Your task to perform on an android device: Show me recent news Image 0: 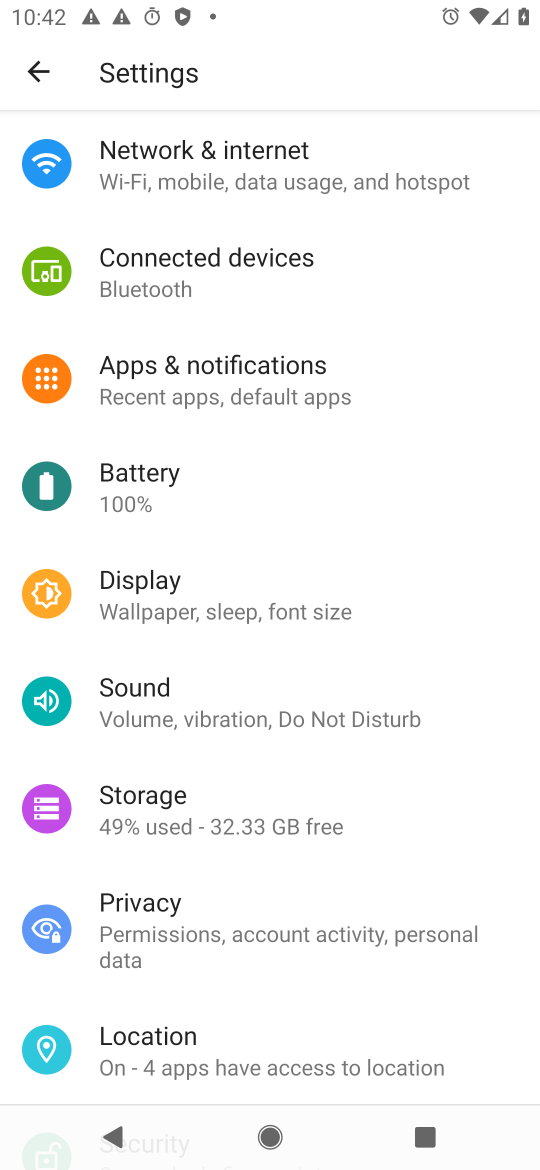
Step 0: drag from (287, 760) to (348, 501)
Your task to perform on an android device: Show me recent news Image 1: 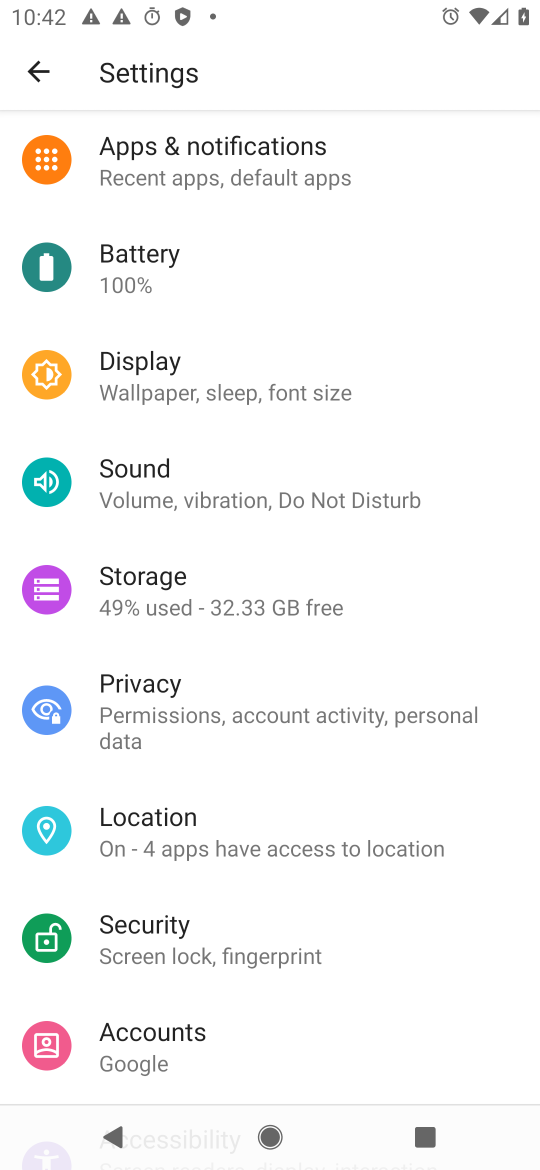
Step 1: drag from (466, 152) to (323, 1149)
Your task to perform on an android device: Show me recent news Image 2: 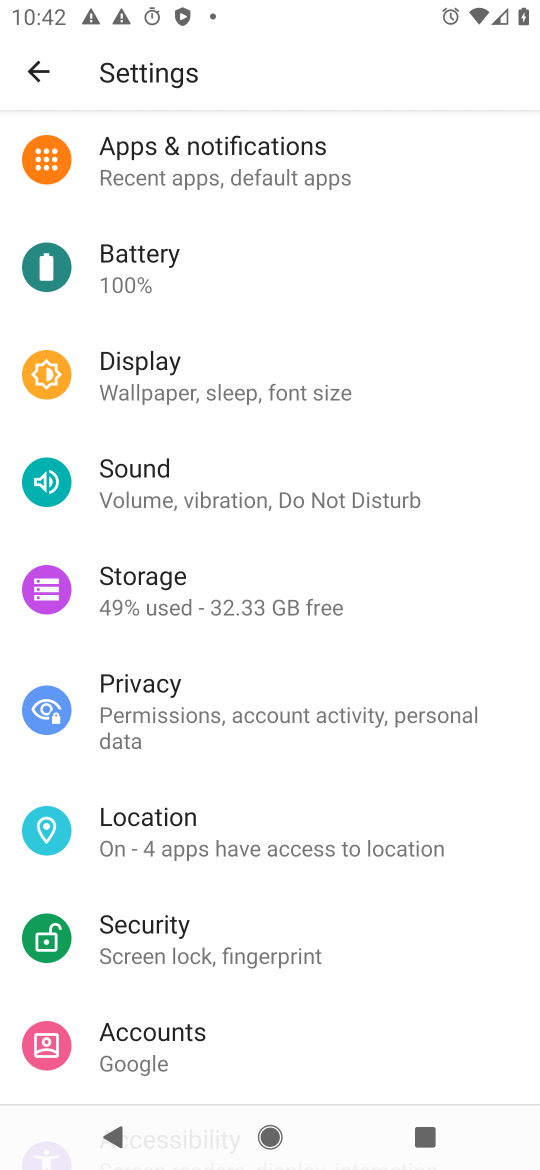
Step 2: drag from (272, 528) to (217, 190)
Your task to perform on an android device: Show me recent news Image 3: 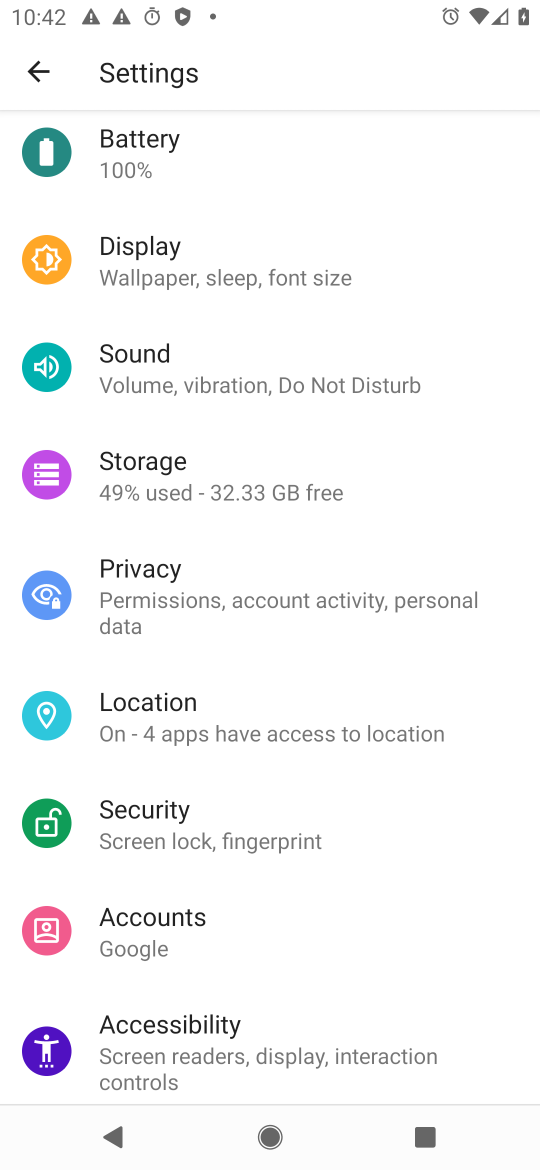
Step 3: drag from (212, 925) to (355, 441)
Your task to perform on an android device: Show me recent news Image 4: 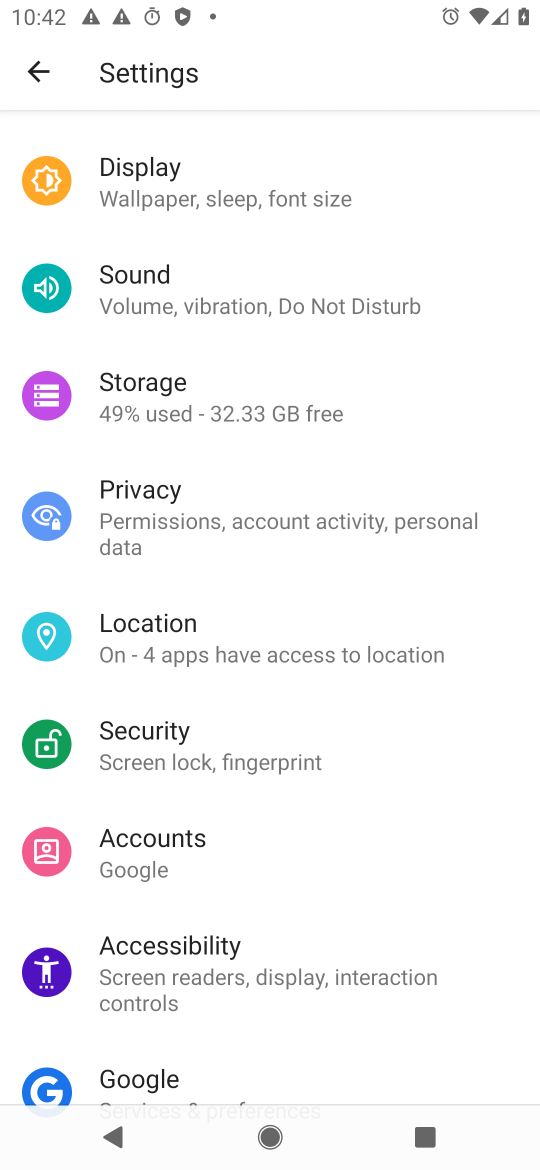
Step 4: drag from (168, 321) to (533, 1140)
Your task to perform on an android device: Show me recent news Image 5: 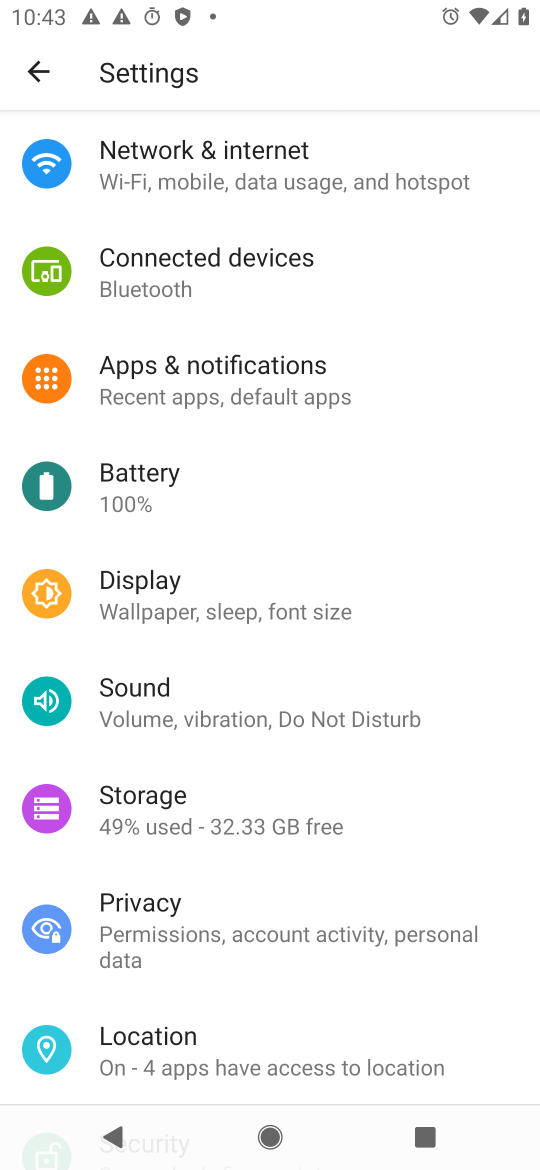
Step 5: drag from (193, 301) to (455, 1023)
Your task to perform on an android device: Show me recent news Image 6: 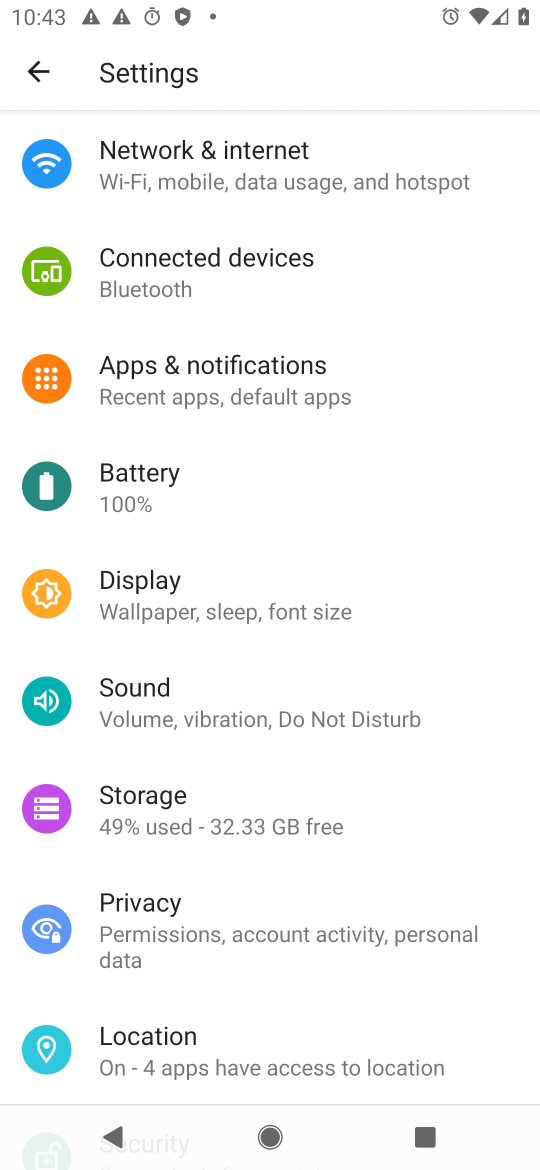
Step 6: drag from (220, 426) to (365, 1168)
Your task to perform on an android device: Show me recent news Image 7: 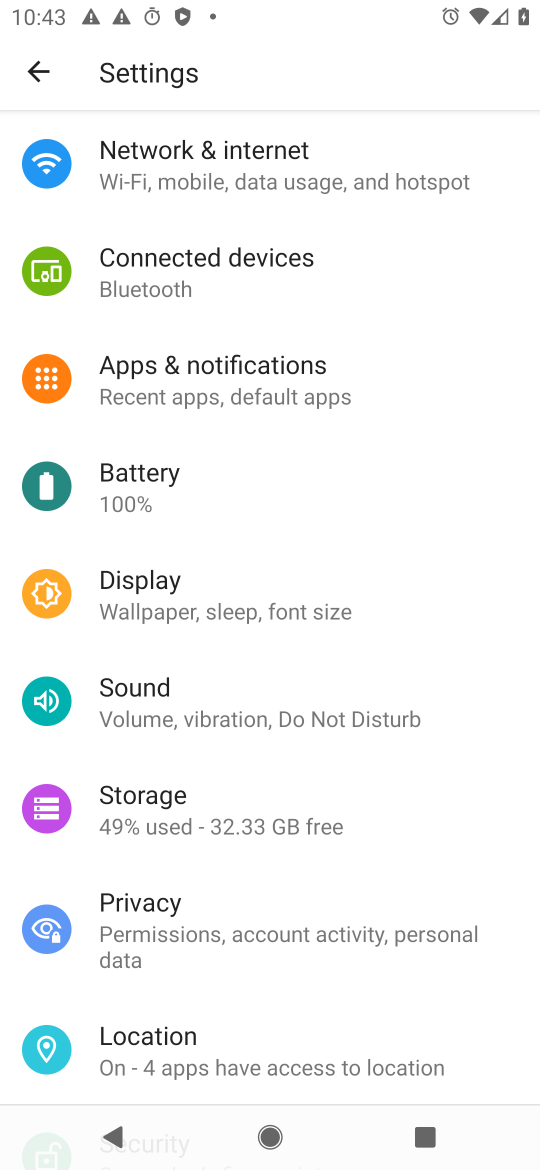
Step 7: press home button
Your task to perform on an android device: Show me recent news Image 8: 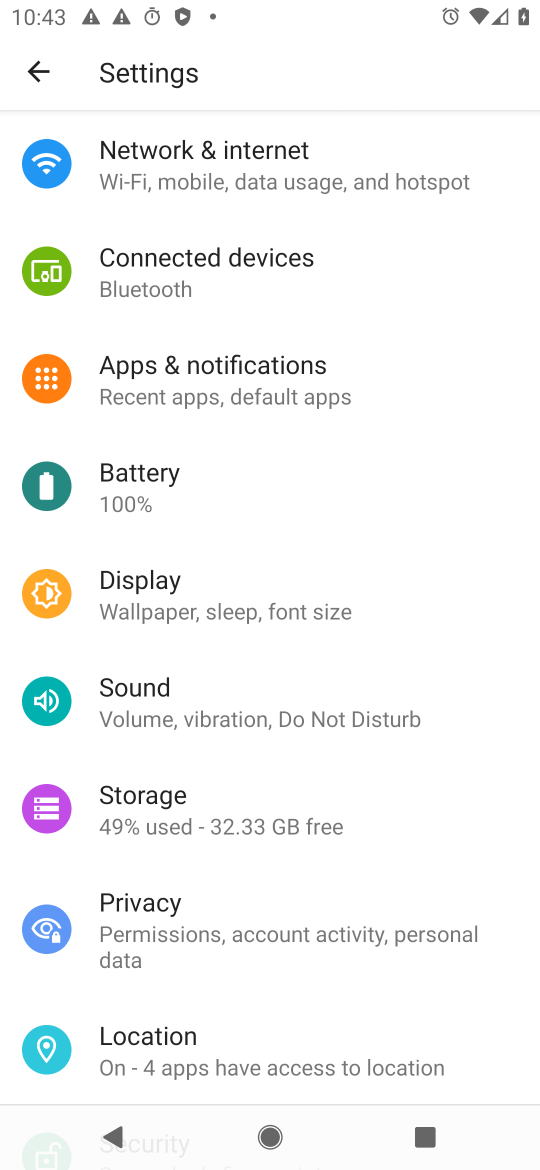
Step 8: drag from (282, 875) to (475, 34)
Your task to perform on an android device: Show me recent news Image 9: 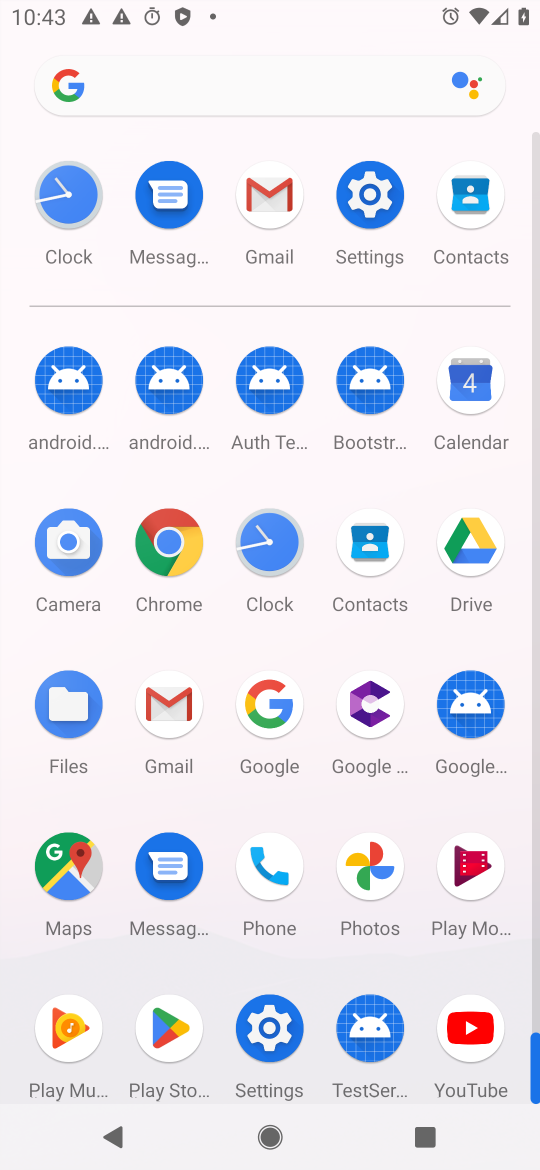
Step 9: drag from (253, 726) to (413, 33)
Your task to perform on an android device: Show me recent news Image 10: 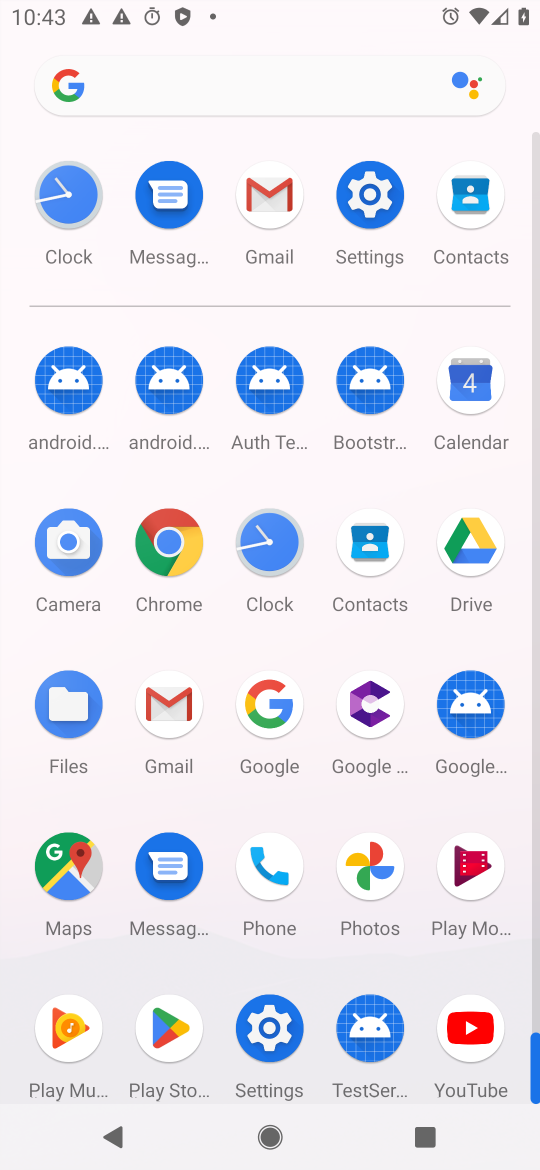
Step 10: click (224, 82)
Your task to perform on an android device: Show me recent news Image 11: 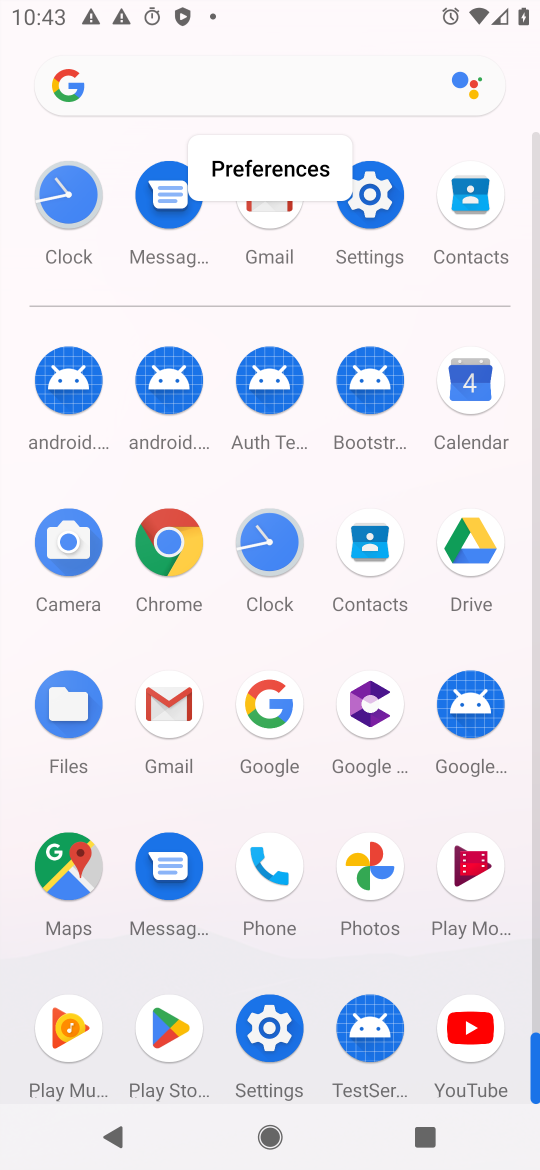
Step 11: click (193, 81)
Your task to perform on an android device: Show me recent news Image 12: 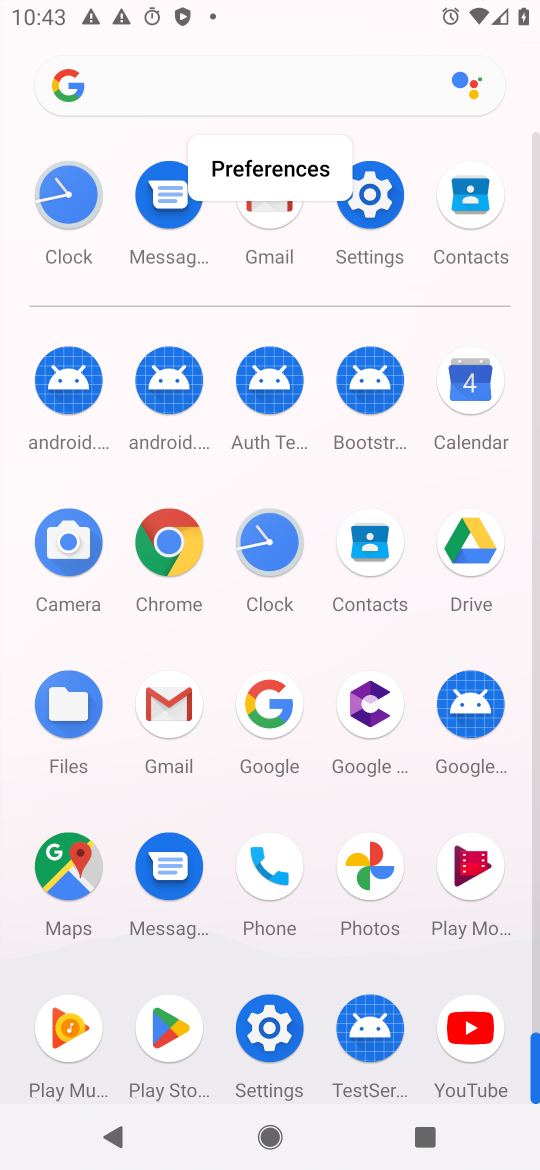
Step 12: click (178, 89)
Your task to perform on an android device: Show me recent news Image 13: 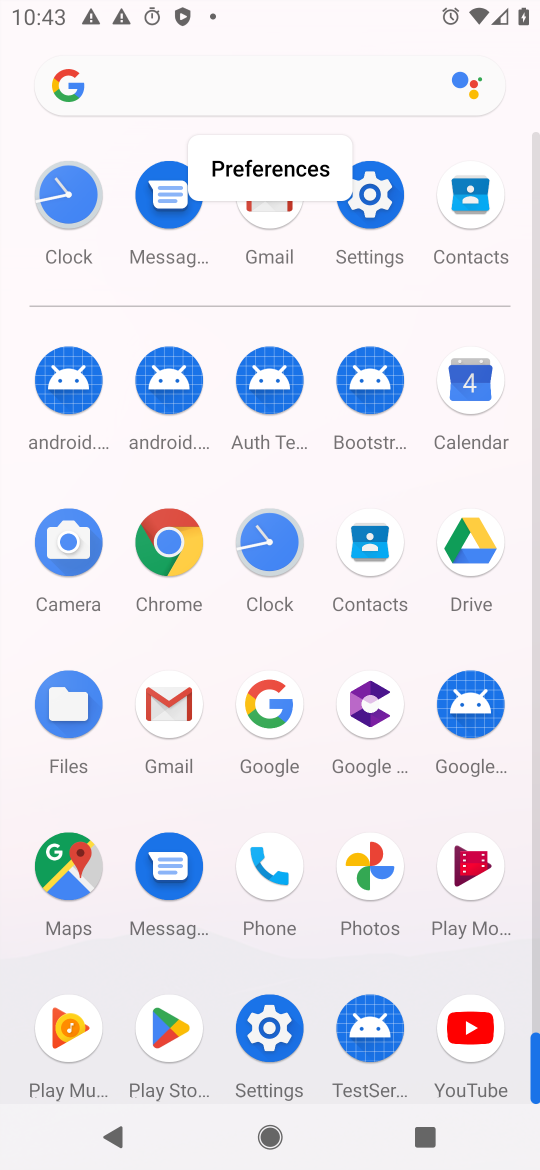
Step 13: click (178, 89)
Your task to perform on an android device: Show me recent news Image 14: 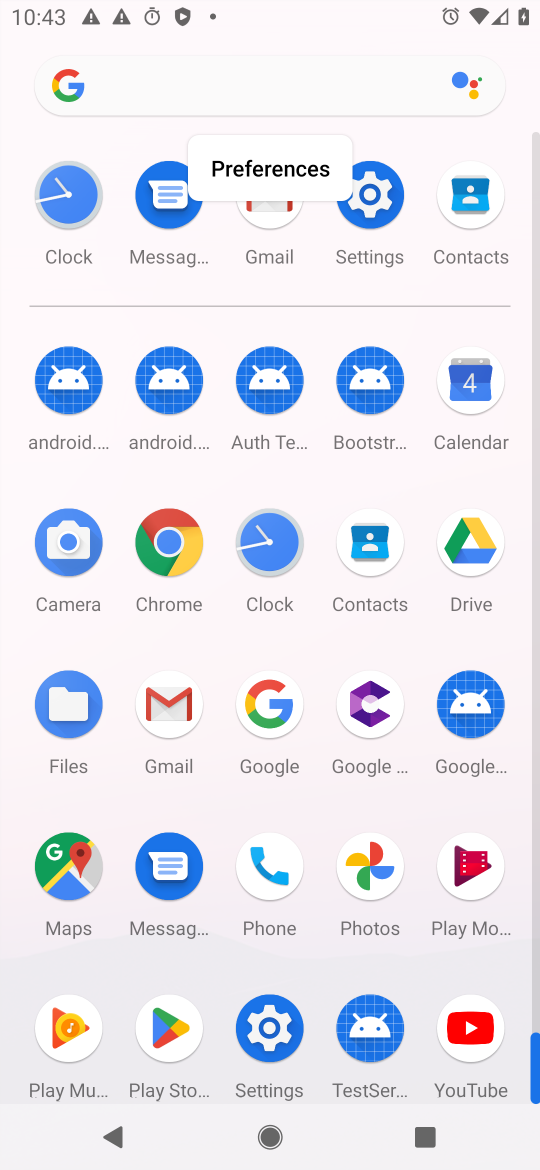
Step 14: click (157, 541)
Your task to perform on an android device: Show me recent news Image 15: 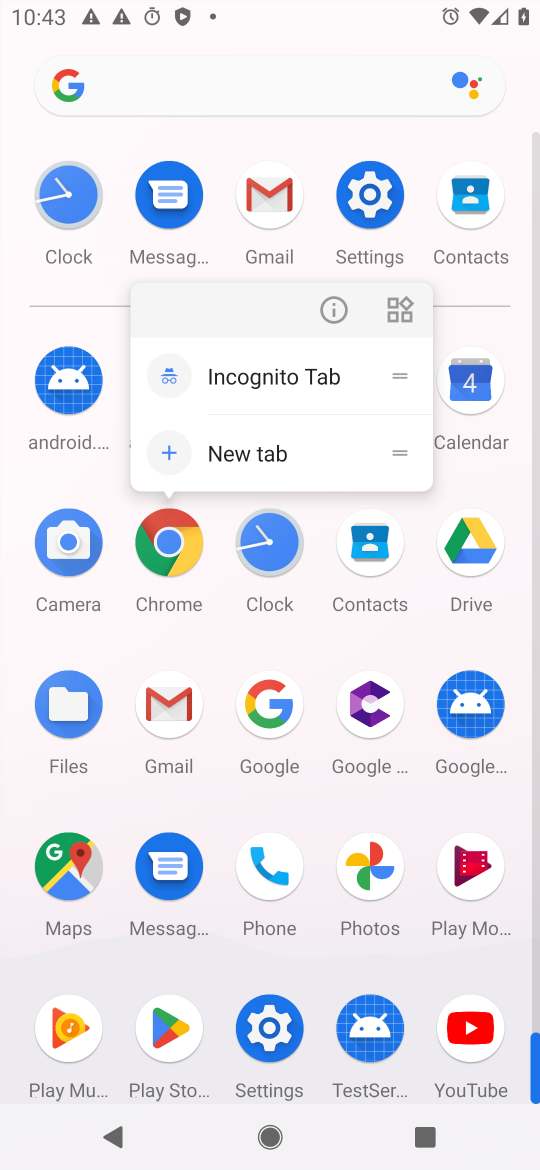
Step 15: click (333, 299)
Your task to perform on an android device: Show me recent news Image 16: 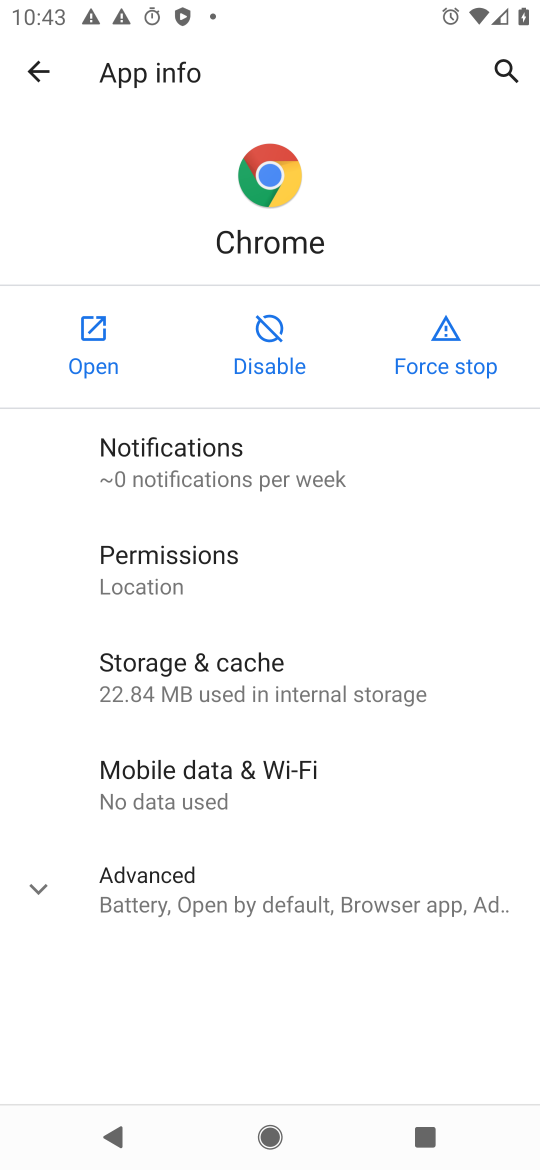
Step 16: click (100, 328)
Your task to perform on an android device: Show me recent news Image 17: 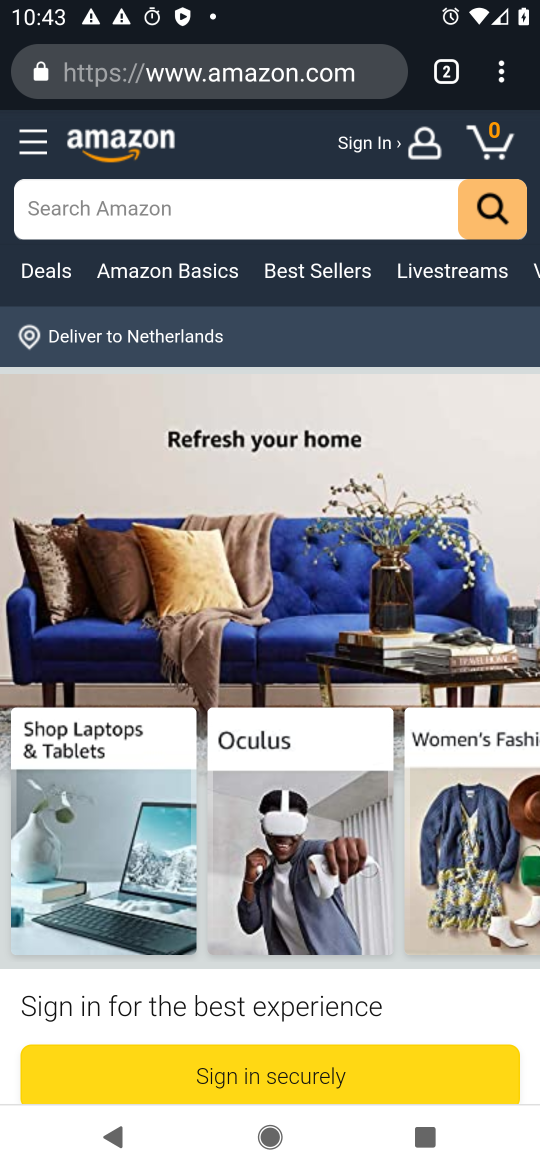
Step 17: click (254, 73)
Your task to perform on an android device: Show me recent news Image 18: 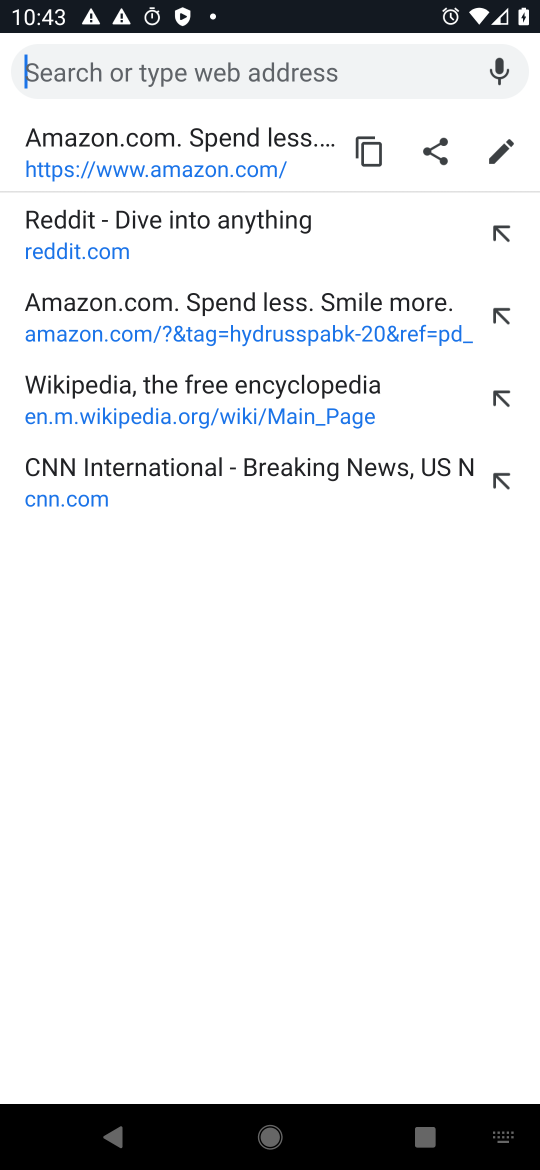
Step 18: type "recent news"
Your task to perform on an android device: Show me recent news Image 19: 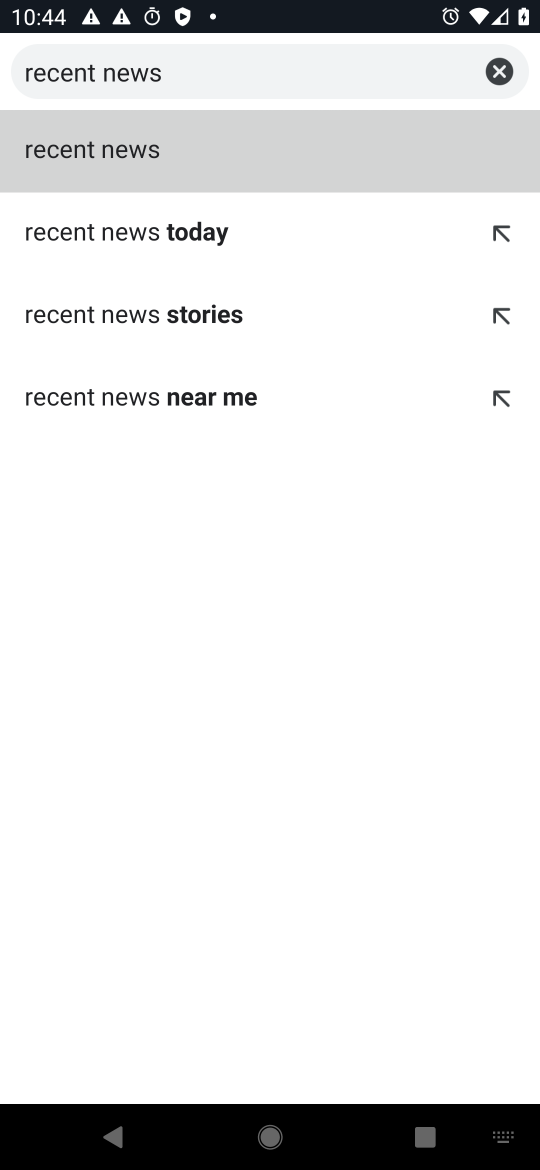
Step 19: click (125, 140)
Your task to perform on an android device: Show me recent news Image 20: 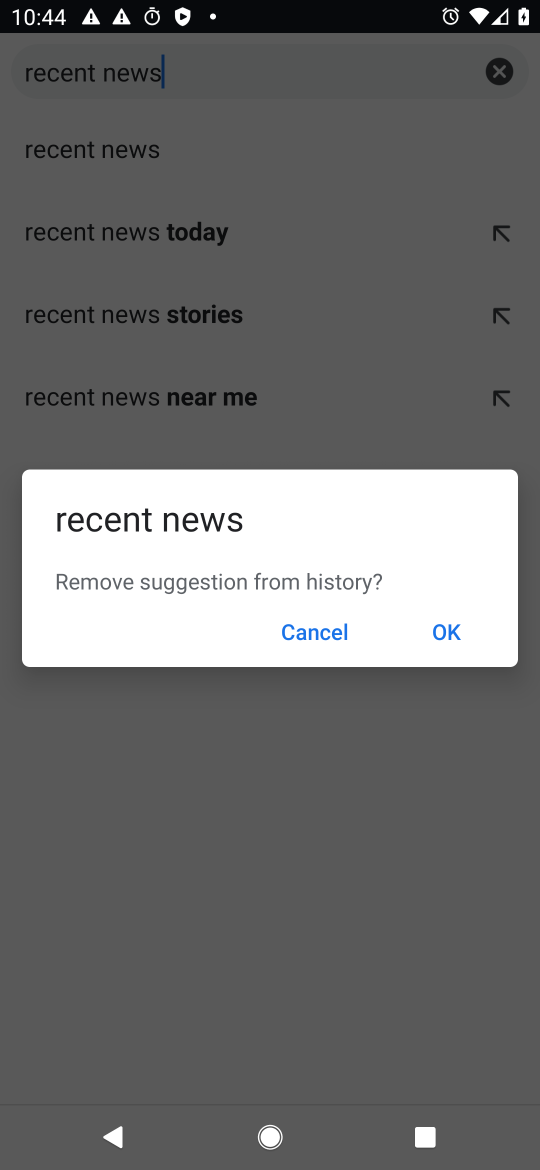
Step 20: click (329, 621)
Your task to perform on an android device: Show me recent news Image 21: 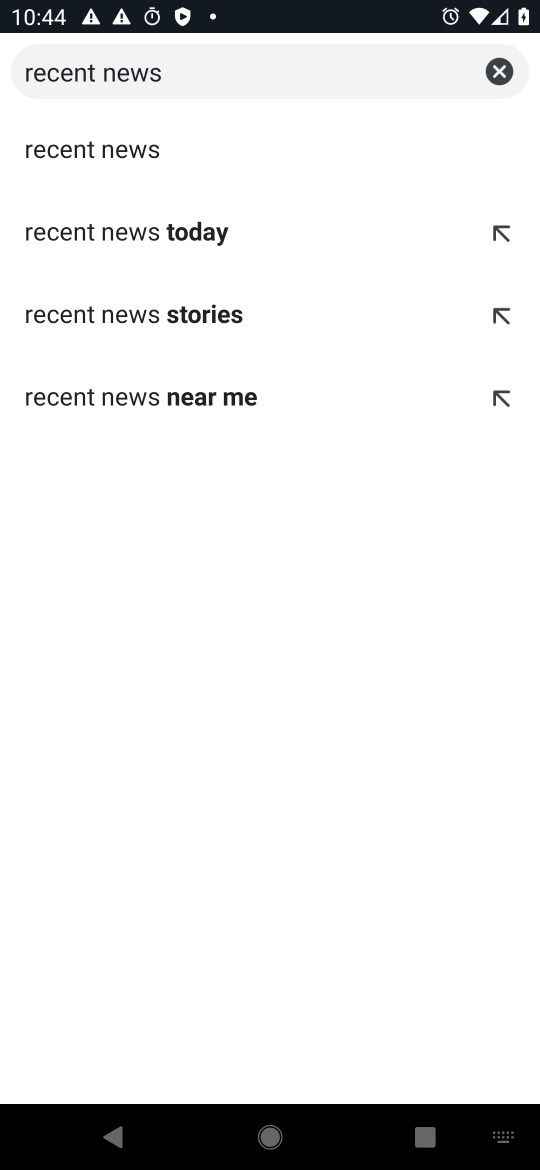
Step 21: click (33, 146)
Your task to perform on an android device: Show me recent news Image 22: 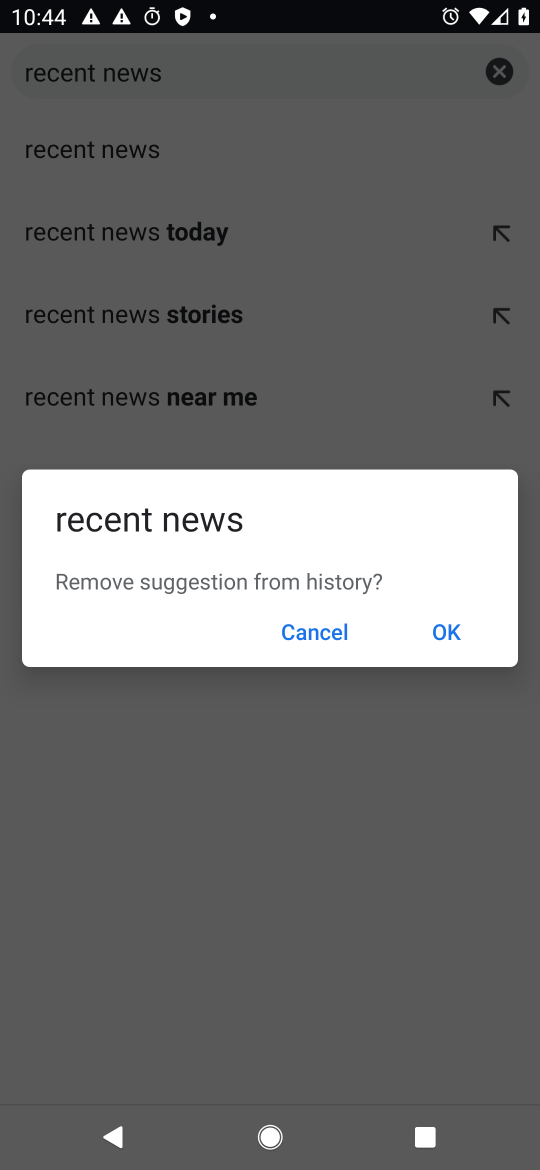
Step 22: click (322, 629)
Your task to perform on an android device: Show me recent news Image 23: 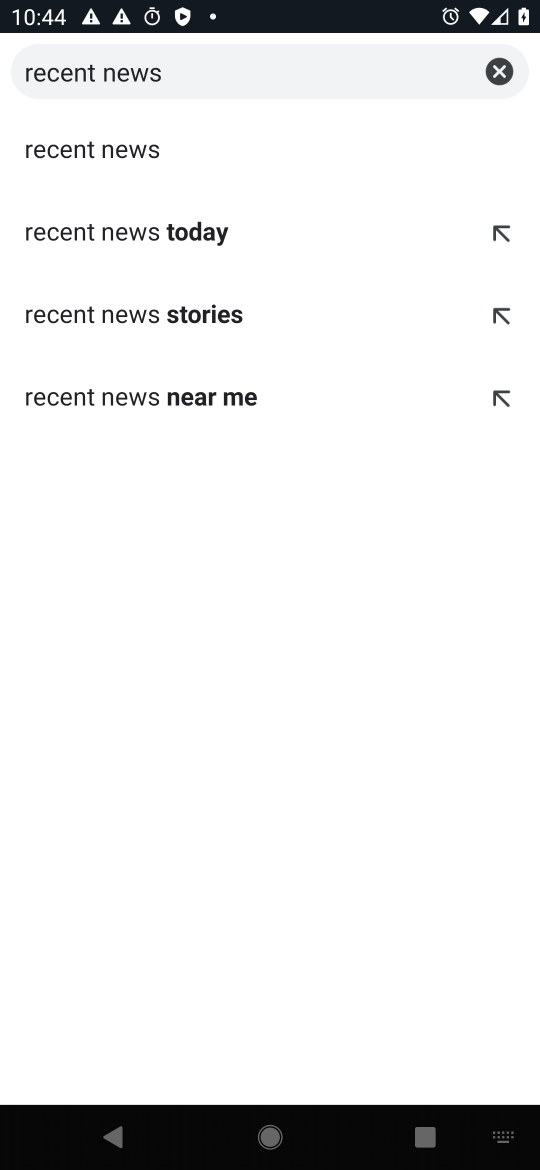
Step 23: click (138, 156)
Your task to perform on an android device: Show me recent news Image 24: 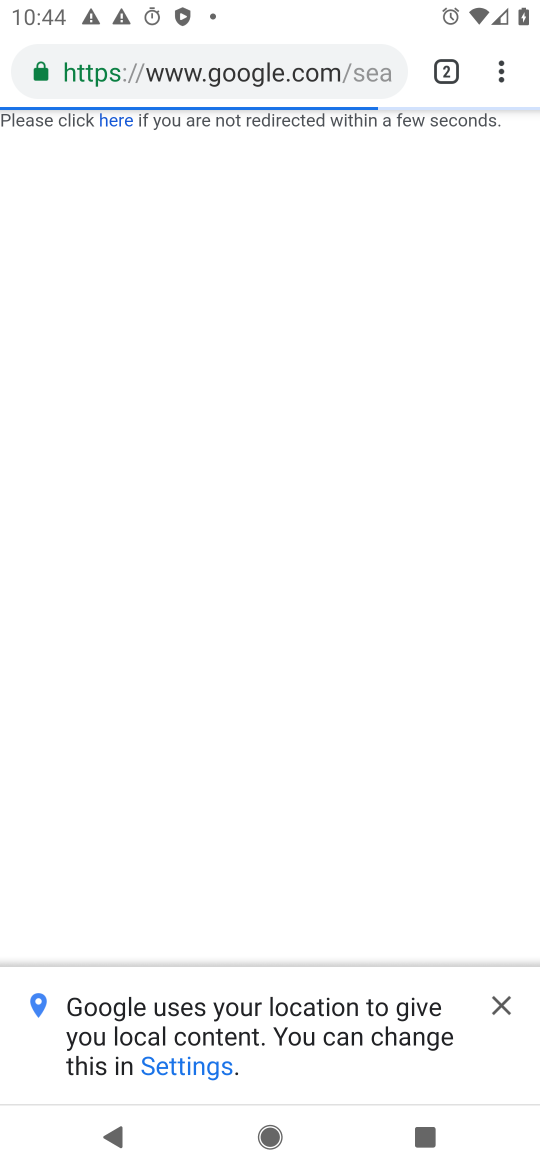
Step 24: task complete